Your task to perform on an android device: uninstall "Roku - Official Remote Control" Image 0: 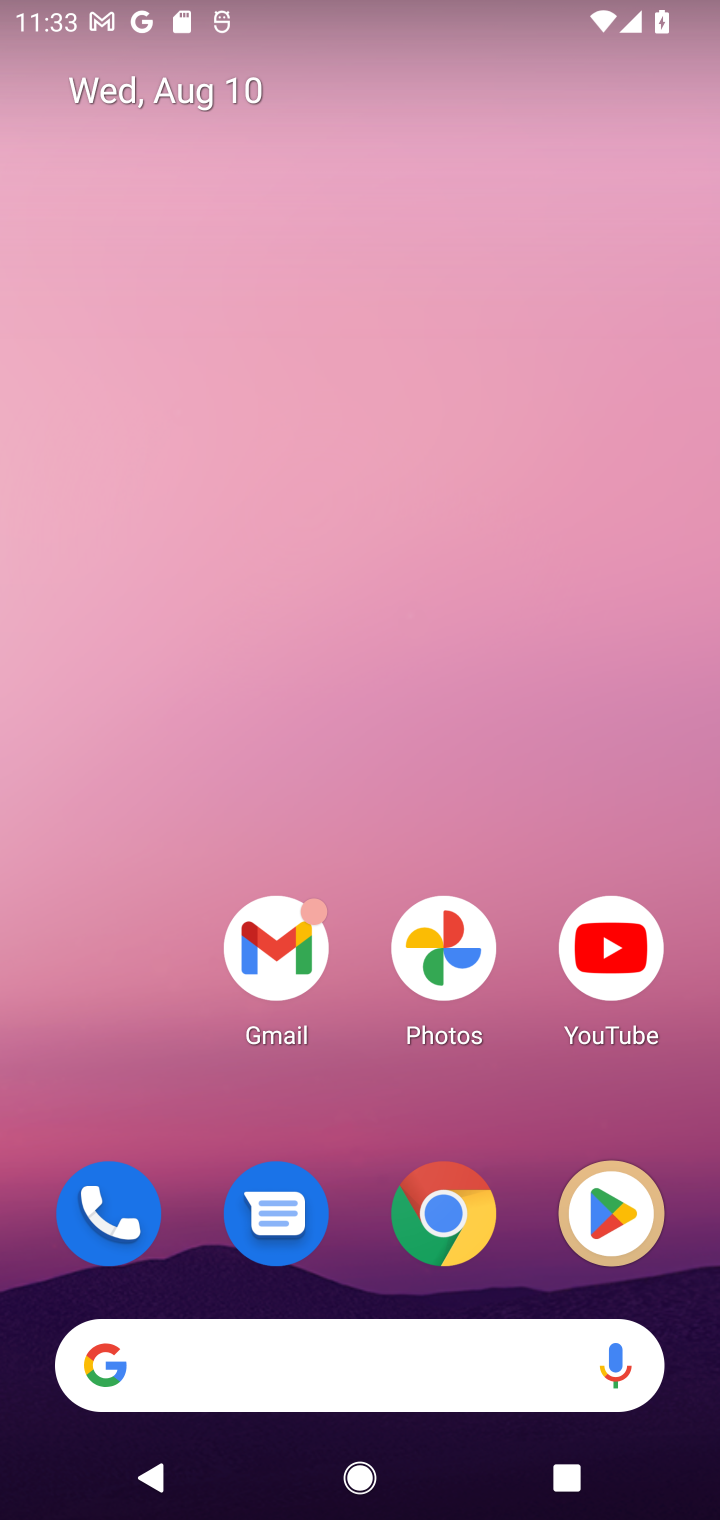
Step 0: drag from (293, 1377) to (348, 275)
Your task to perform on an android device: uninstall "Roku - Official Remote Control" Image 1: 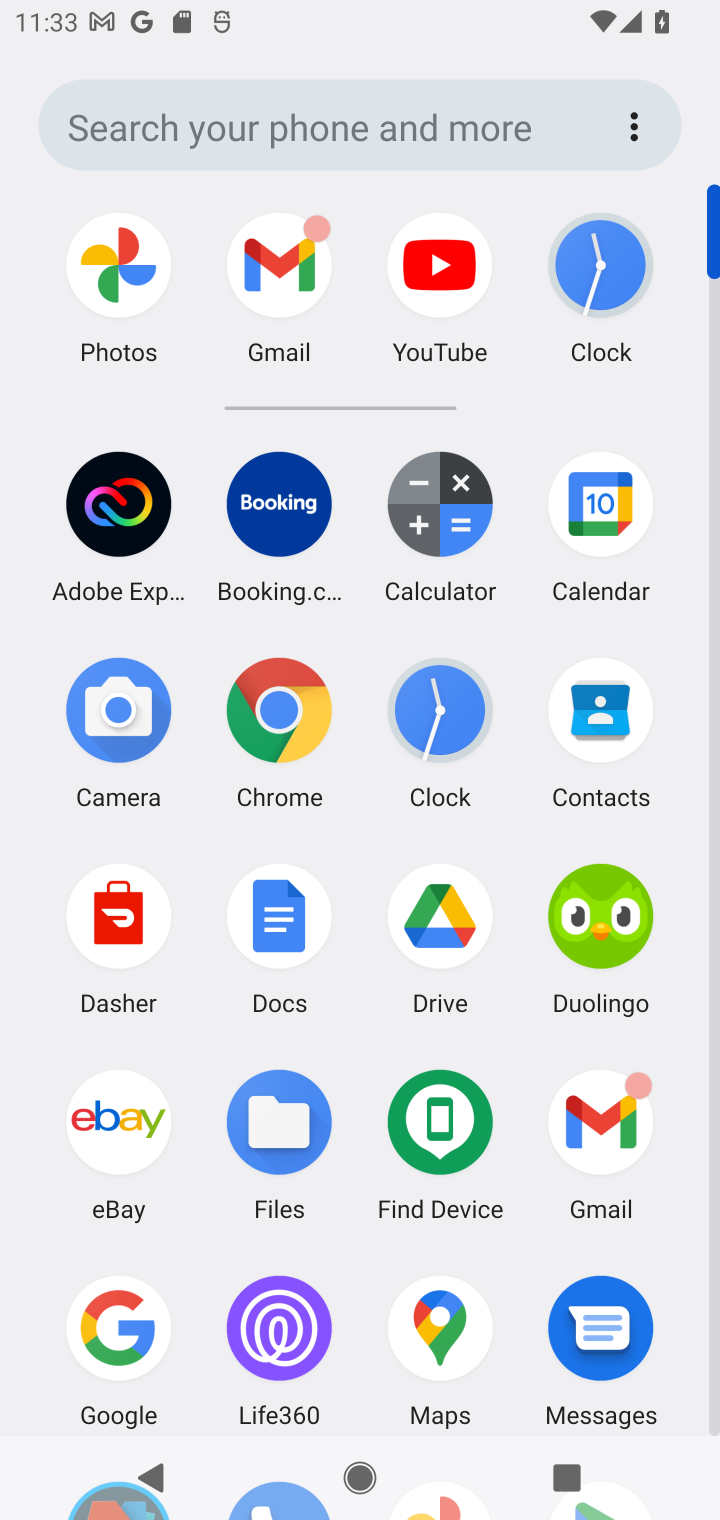
Step 1: drag from (374, 1347) to (373, 763)
Your task to perform on an android device: uninstall "Roku - Official Remote Control" Image 2: 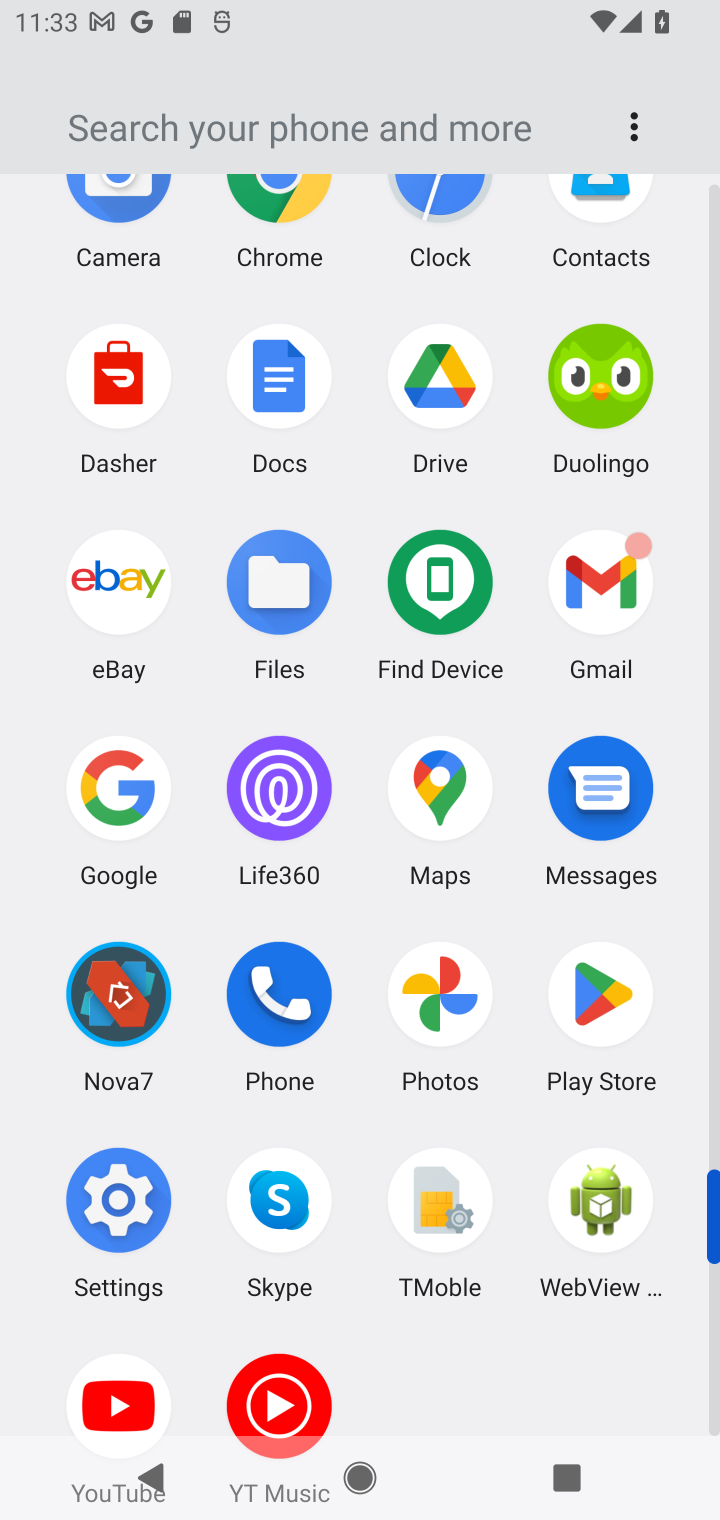
Step 2: click (607, 1000)
Your task to perform on an android device: uninstall "Roku - Official Remote Control" Image 3: 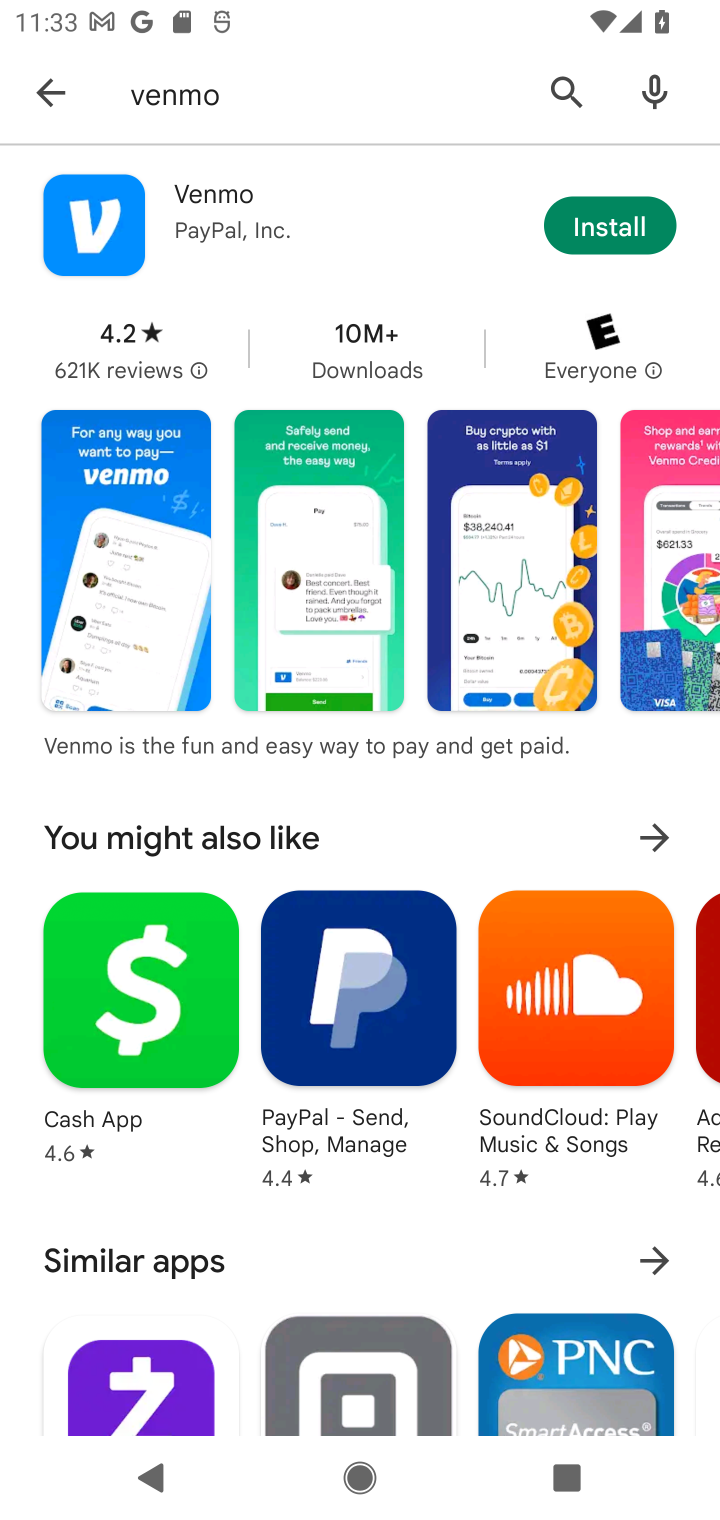
Step 3: press back button
Your task to perform on an android device: uninstall "Roku - Official Remote Control" Image 4: 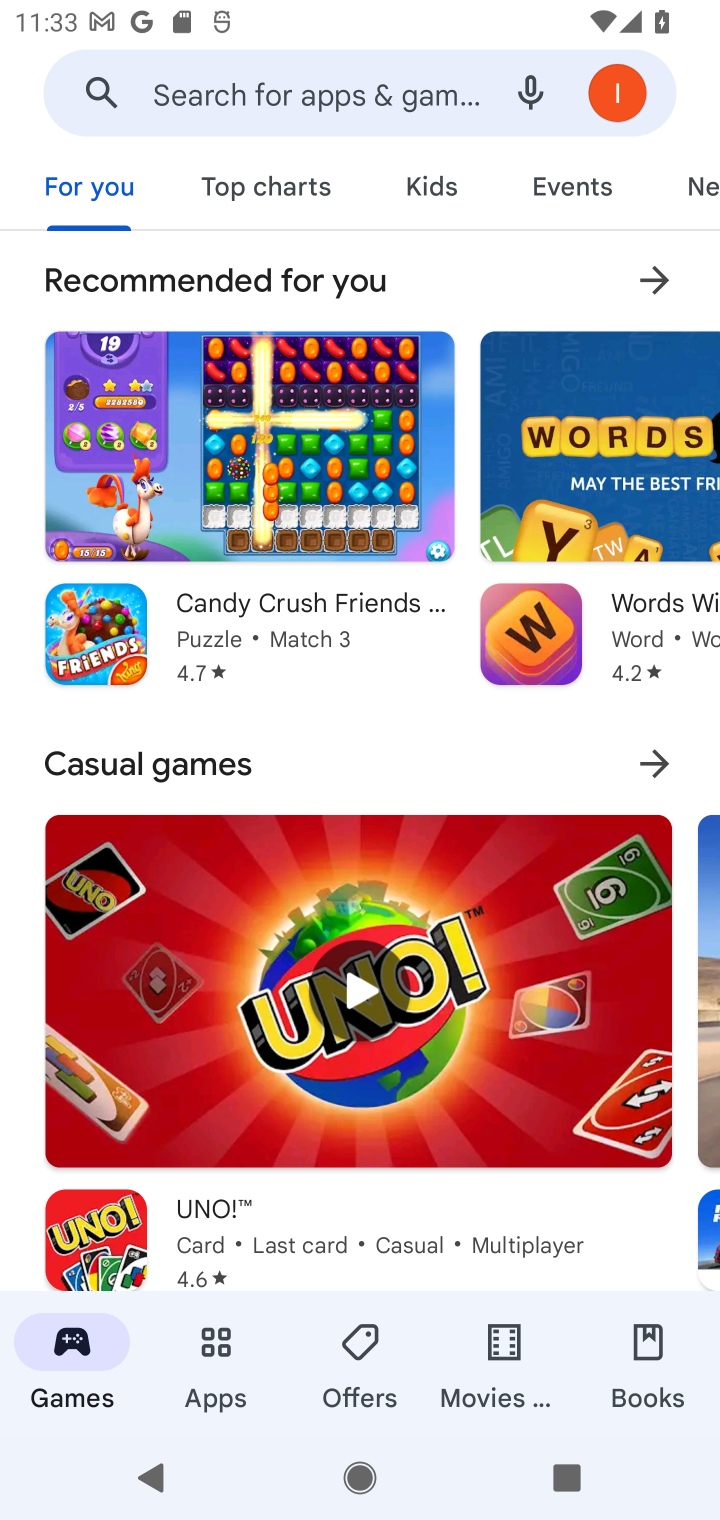
Step 4: click (315, 76)
Your task to perform on an android device: uninstall "Roku - Official Remote Control" Image 5: 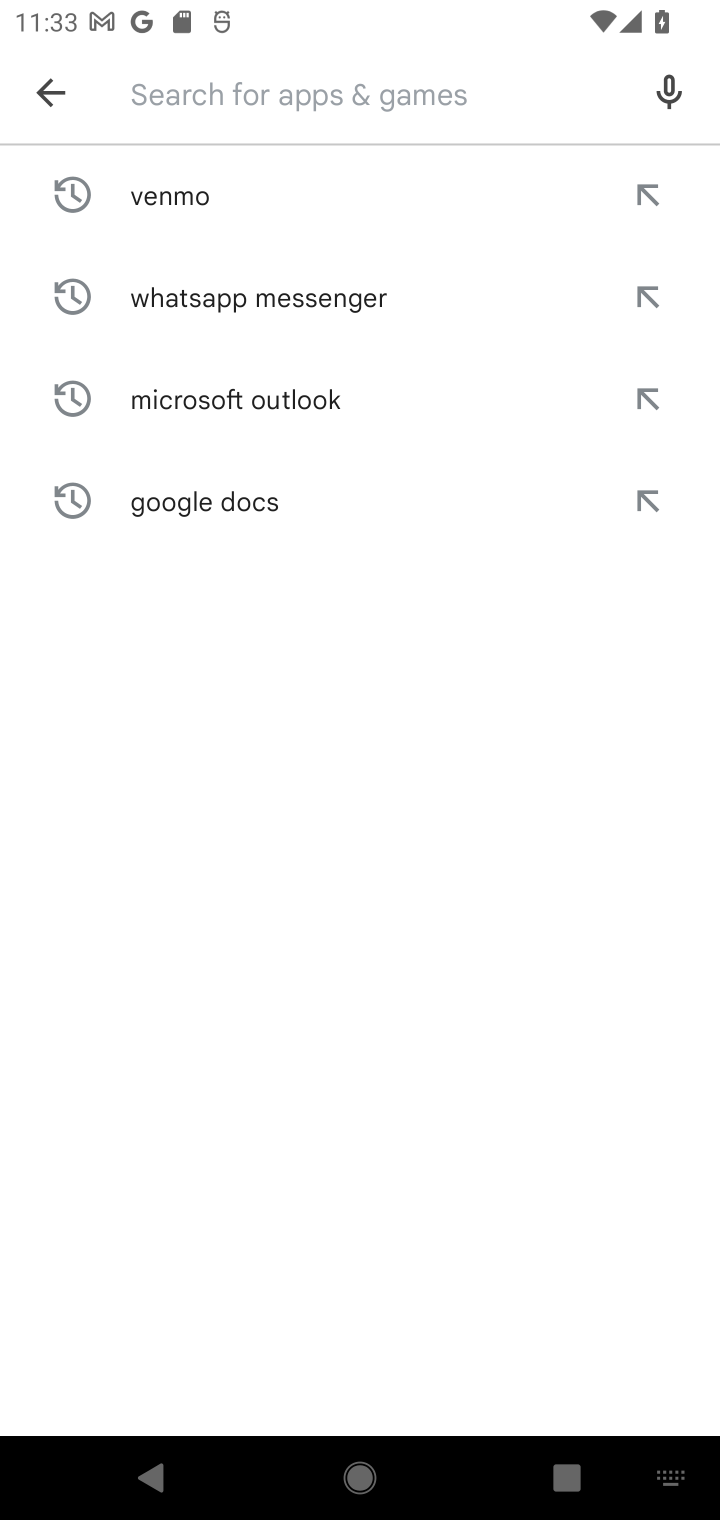
Step 5: type "Roku - Official Remote Control"
Your task to perform on an android device: uninstall "Roku - Official Remote Control" Image 6: 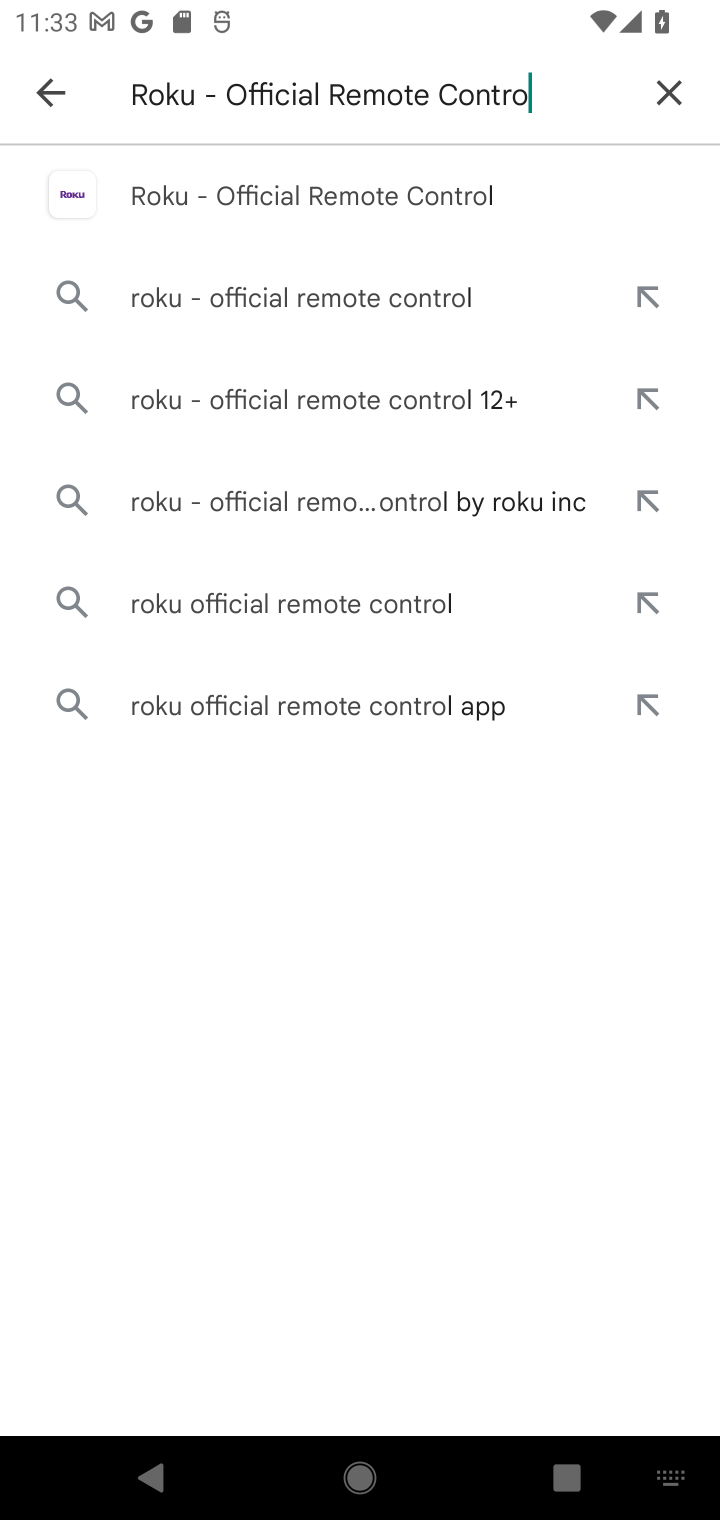
Step 6: type ""
Your task to perform on an android device: uninstall "Roku - Official Remote Control" Image 7: 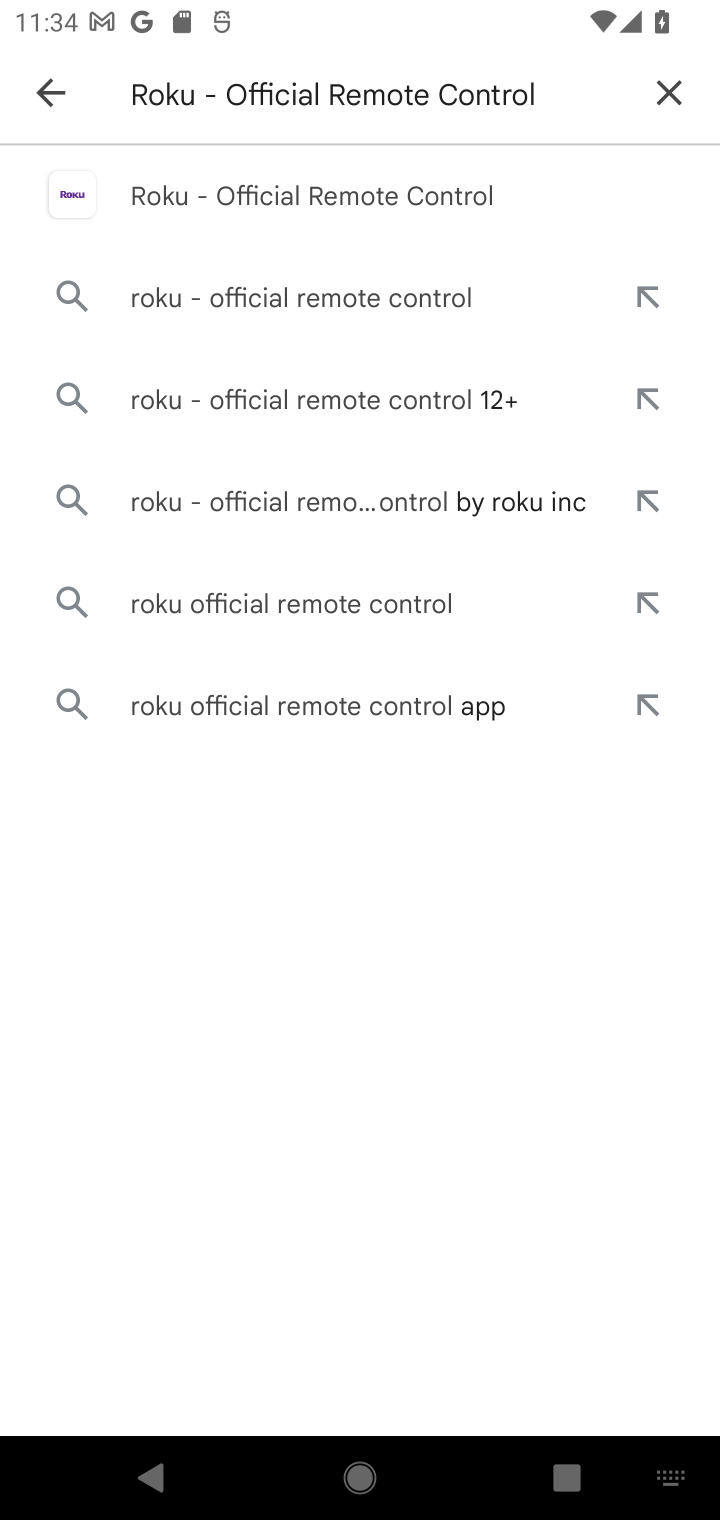
Step 7: click (297, 203)
Your task to perform on an android device: uninstall "Roku - Official Remote Control" Image 8: 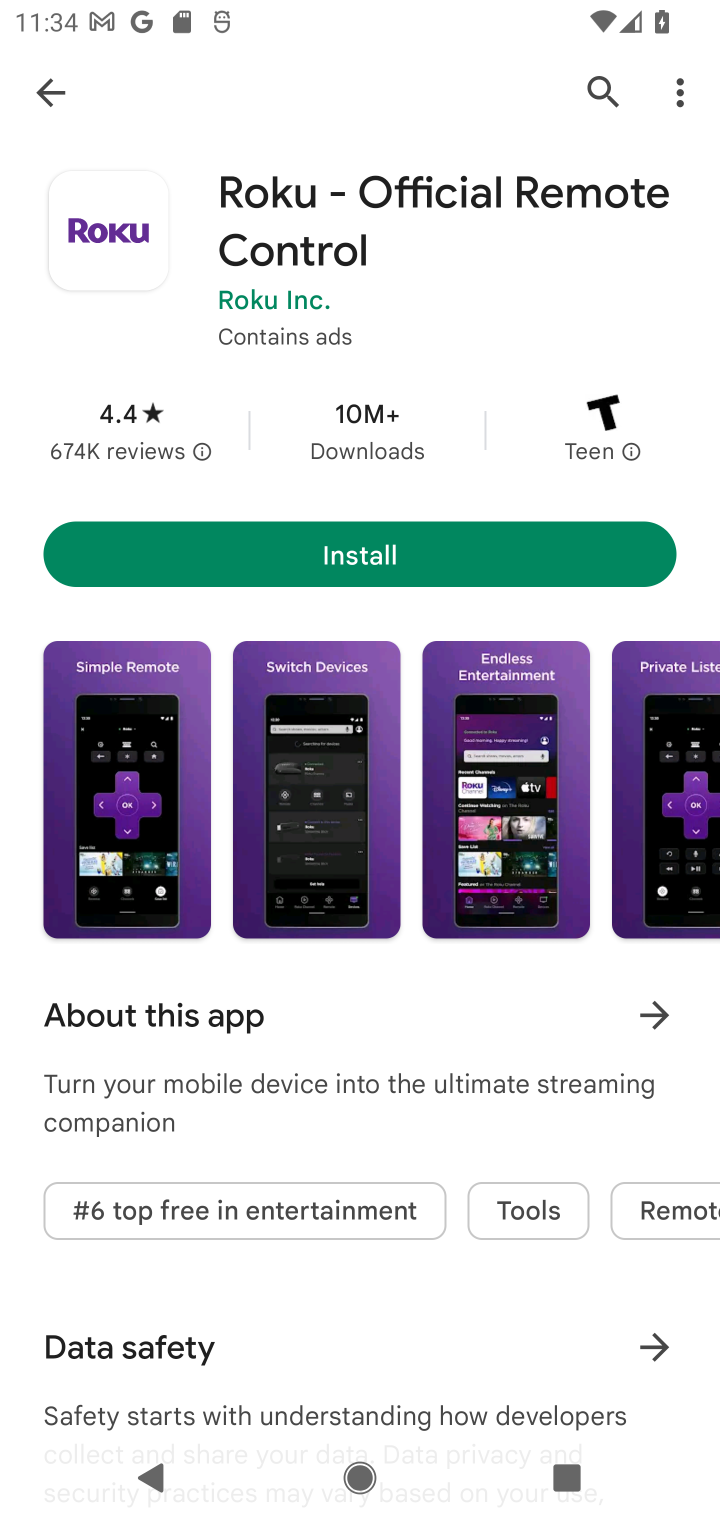
Step 8: task complete